Your task to perform on an android device: Turn off the flashlight Image 0: 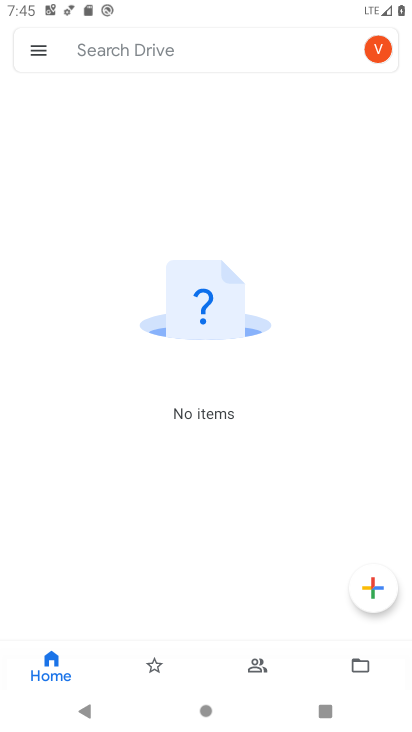
Step 0: press home button
Your task to perform on an android device: Turn off the flashlight Image 1: 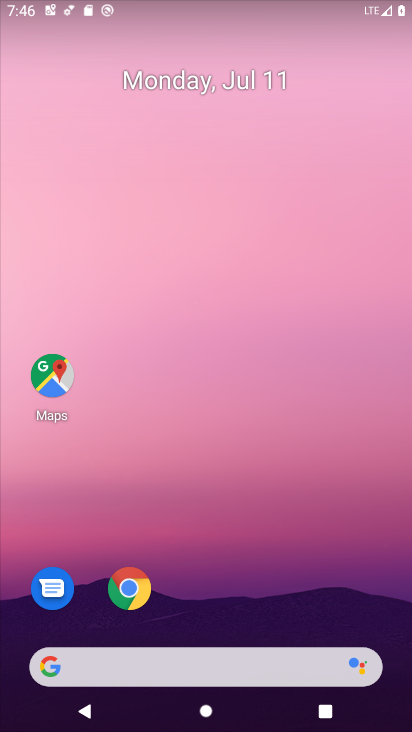
Step 1: drag from (378, 623) to (283, 6)
Your task to perform on an android device: Turn off the flashlight Image 2: 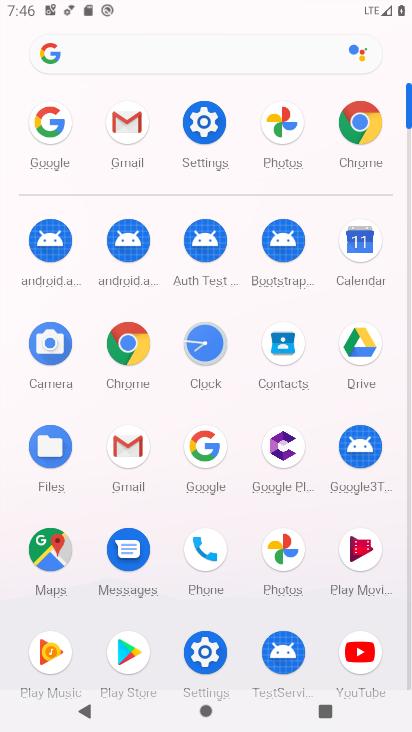
Step 2: click (225, 115)
Your task to perform on an android device: Turn off the flashlight Image 3: 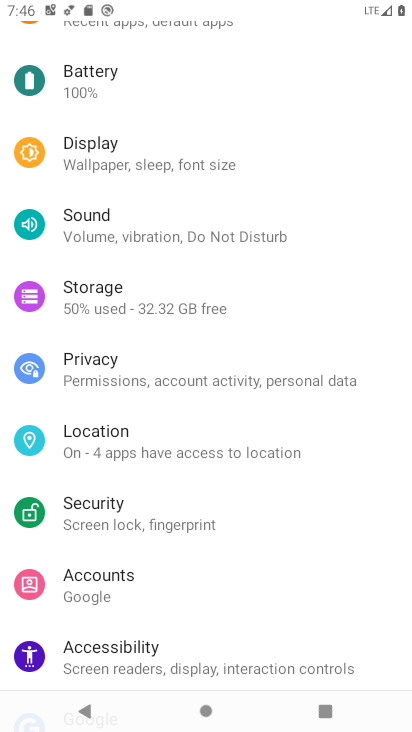
Step 3: task complete